Your task to perform on an android device: turn off sleep mode Image 0: 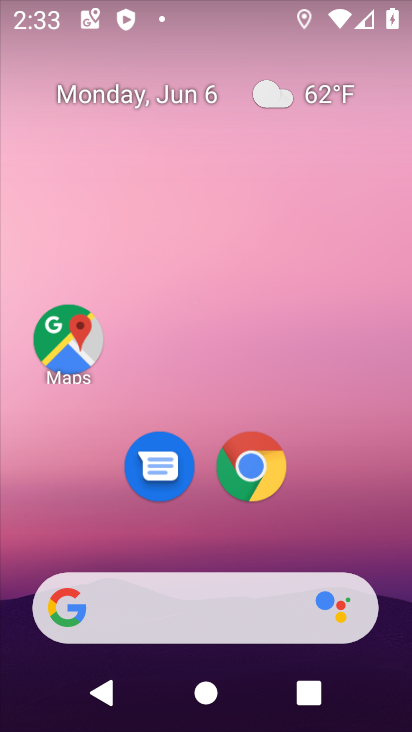
Step 0: drag from (252, 701) to (156, 220)
Your task to perform on an android device: turn off sleep mode Image 1: 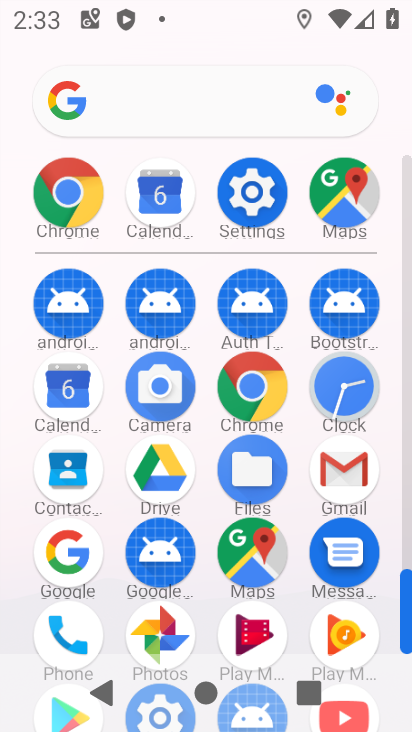
Step 1: click (247, 217)
Your task to perform on an android device: turn off sleep mode Image 2: 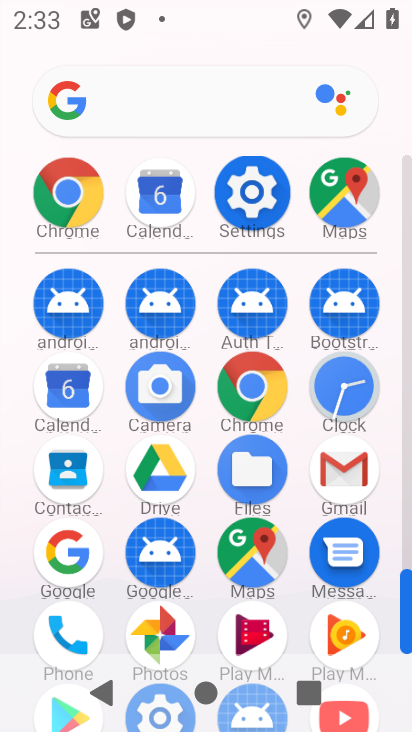
Step 2: drag from (245, 218) to (196, 187)
Your task to perform on an android device: turn off sleep mode Image 3: 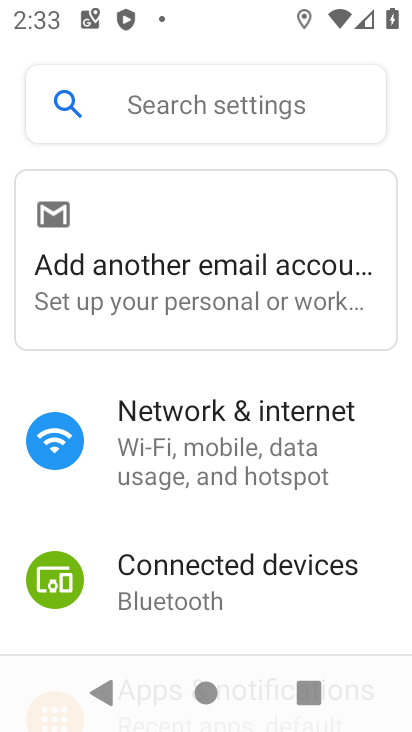
Step 3: drag from (227, 450) to (177, 79)
Your task to perform on an android device: turn off sleep mode Image 4: 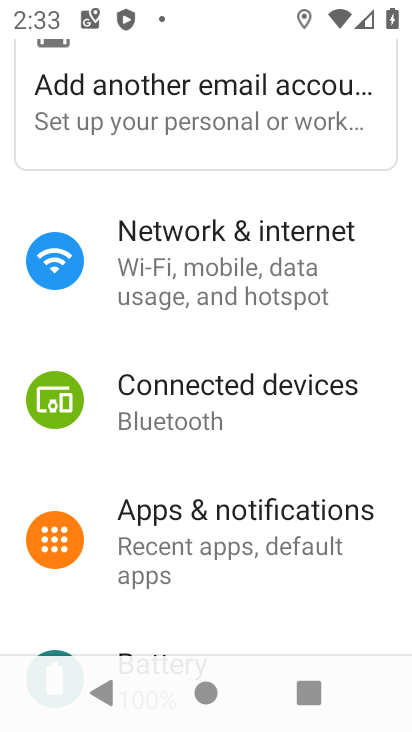
Step 4: drag from (183, 442) to (172, 186)
Your task to perform on an android device: turn off sleep mode Image 5: 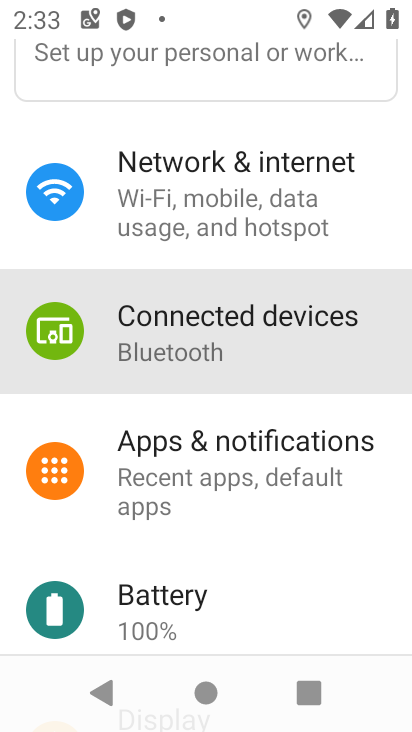
Step 5: drag from (212, 427) to (225, 171)
Your task to perform on an android device: turn off sleep mode Image 6: 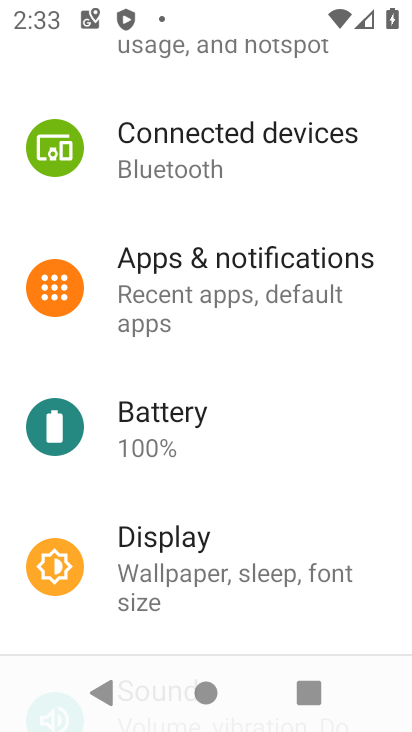
Step 6: drag from (206, 439) to (162, 91)
Your task to perform on an android device: turn off sleep mode Image 7: 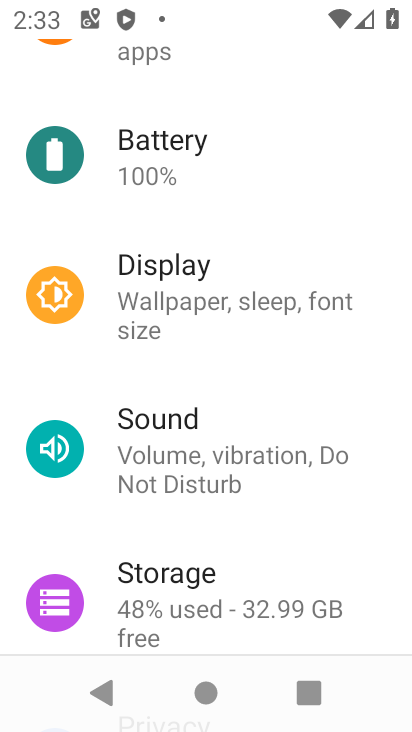
Step 7: drag from (182, 262) to (181, 187)
Your task to perform on an android device: turn off sleep mode Image 8: 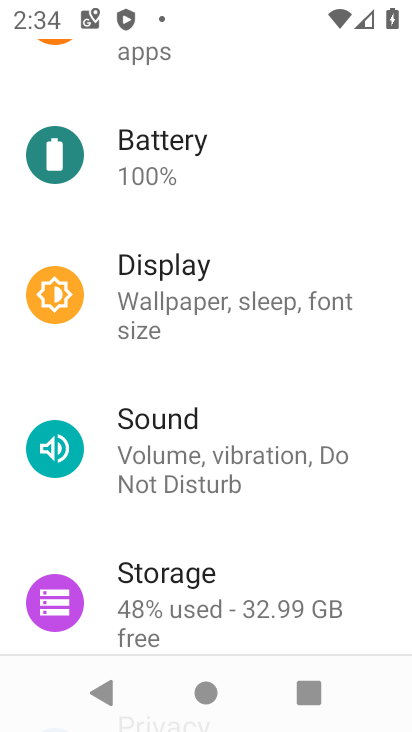
Step 8: click (158, 289)
Your task to perform on an android device: turn off sleep mode Image 9: 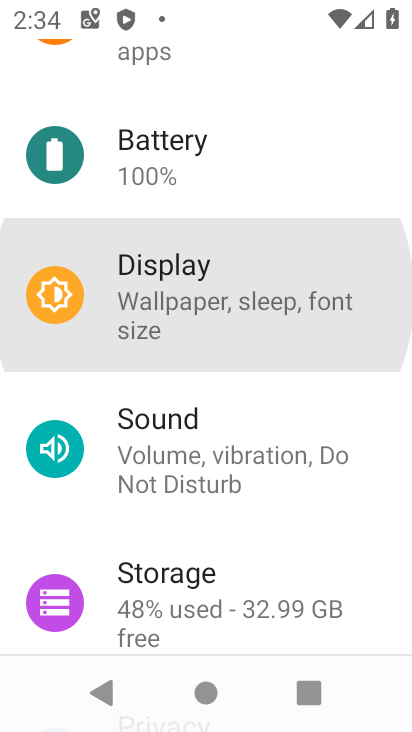
Step 9: click (160, 291)
Your task to perform on an android device: turn off sleep mode Image 10: 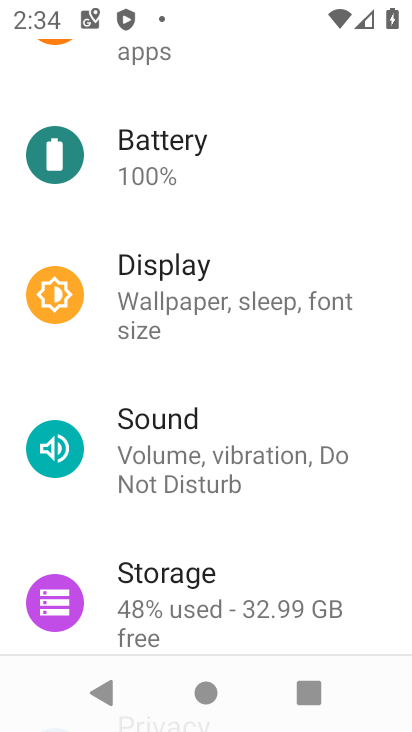
Step 10: click (160, 291)
Your task to perform on an android device: turn off sleep mode Image 11: 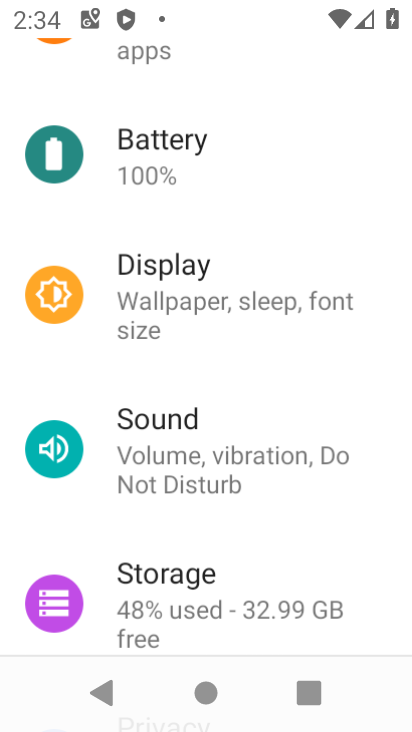
Step 11: click (161, 289)
Your task to perform on an android device: turn off sleep mode Image 12: 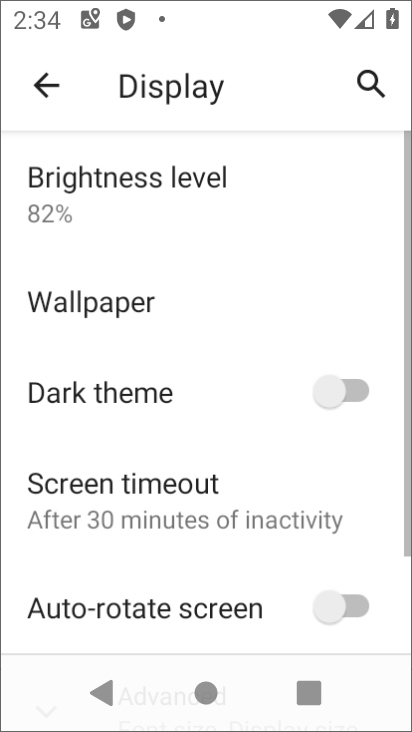
Step 12: click (155, 286)
Your task to perform on an android device: turn off sleep mode Image 13: 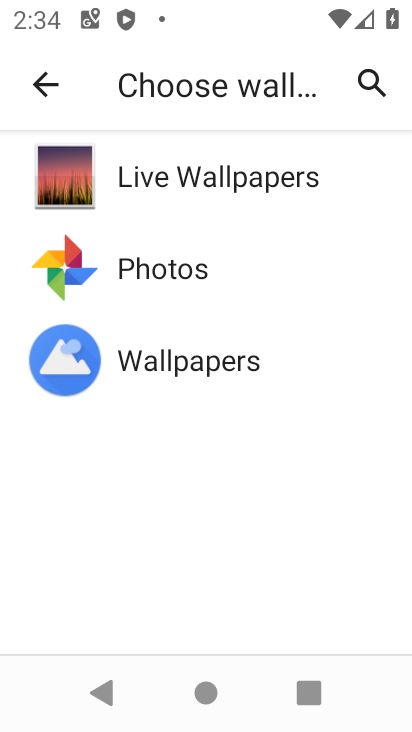
Step 13: click (43, 78)
Your task to perform on an android device: turn off sleep mode Image 14: 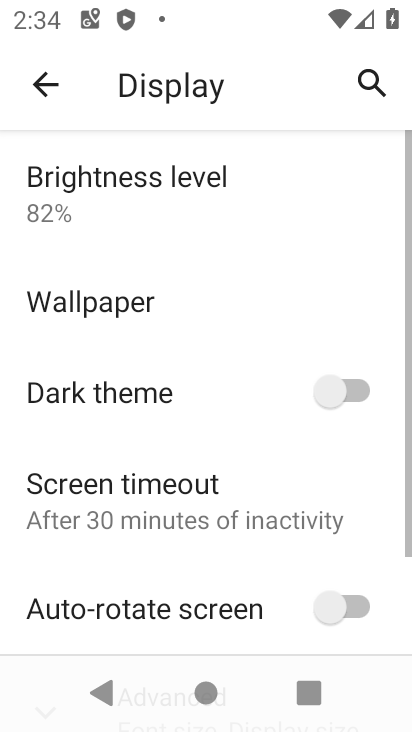
Step 14: task complete